Your task to perform on an android device: empty trash in google photos Image 0: 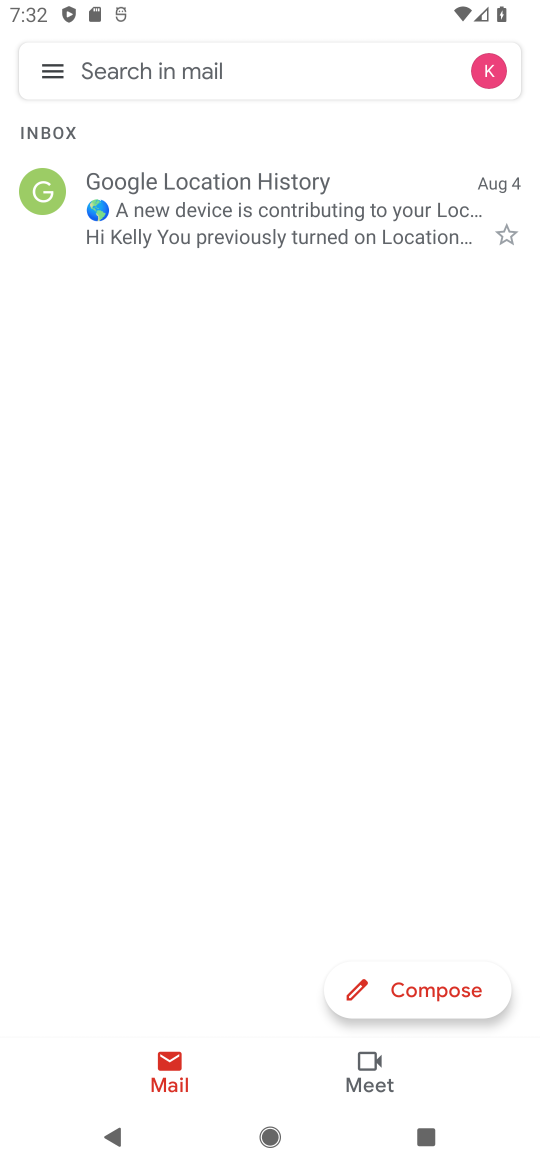
Step 0: press home button
Your task to perform on an android device: empty trash in google photos Image 1: 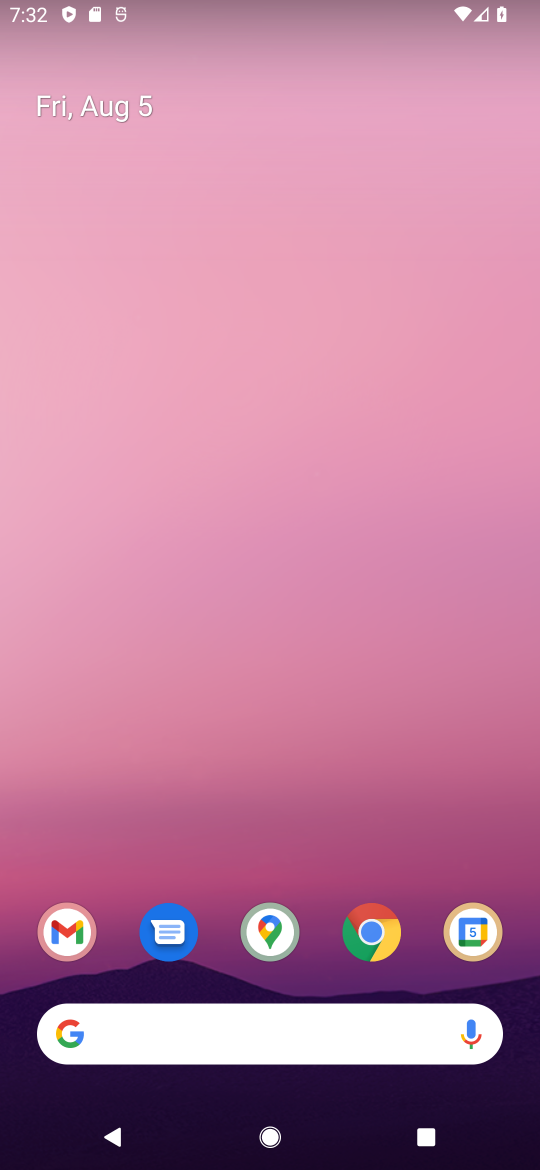
Step 1: drag from (364, 807) to (392, 147)
Your task to perform on an android device: empty trash in google photos Image 2: 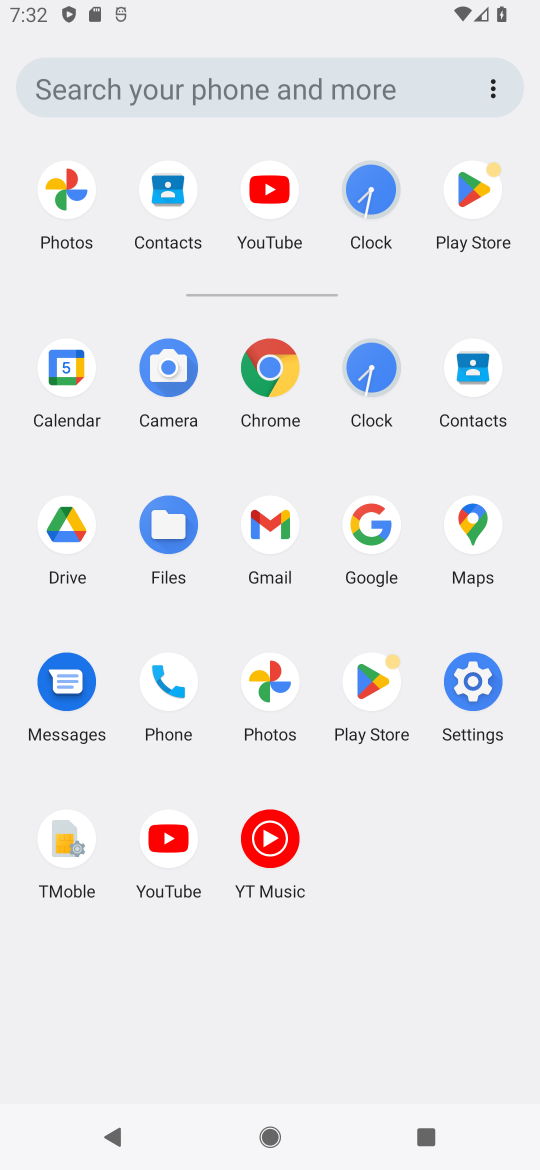
Step 2: click (275, 677)
Your task to perform on an android device: empty trash in google photos Image 3: 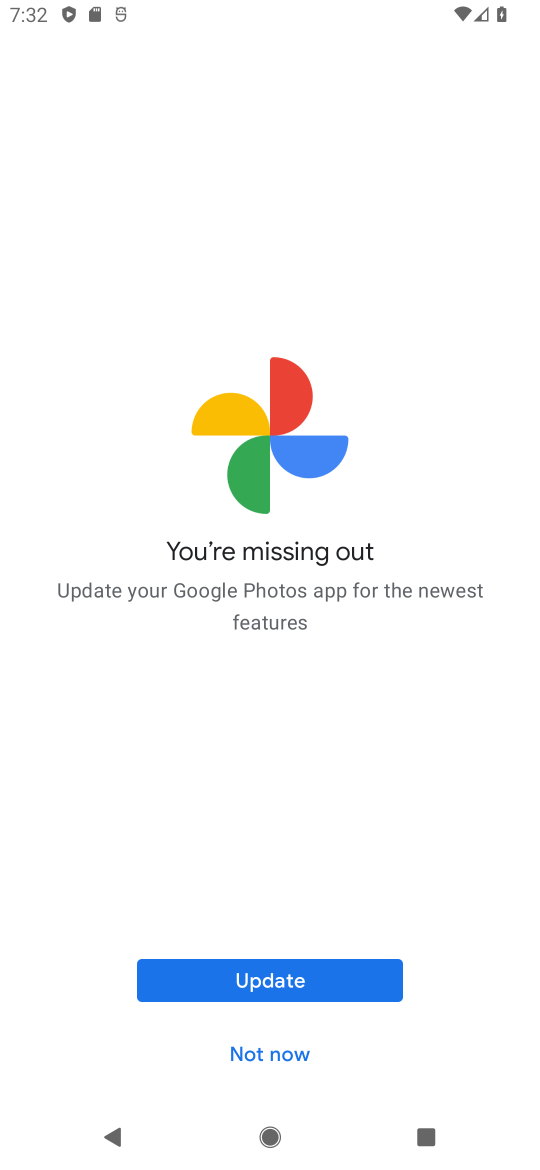
Step 3: click (251, 1040)
Your task to perform on an android device: empty trash in google photos Image 4: 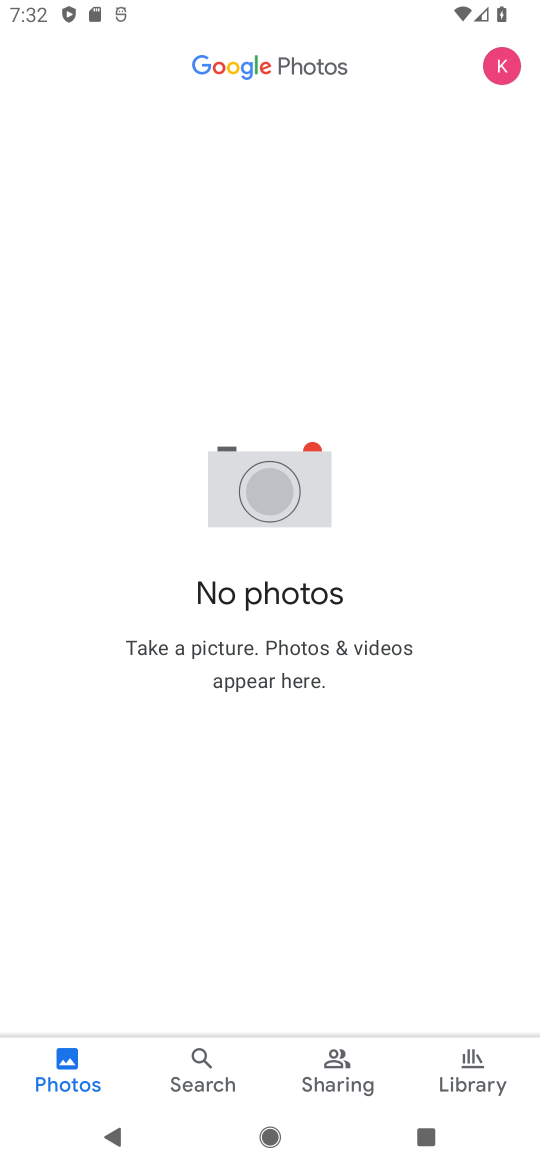
Step 4: click (477, 1065)
Your task to perform on an android device: empty trash in google photos Image 5: 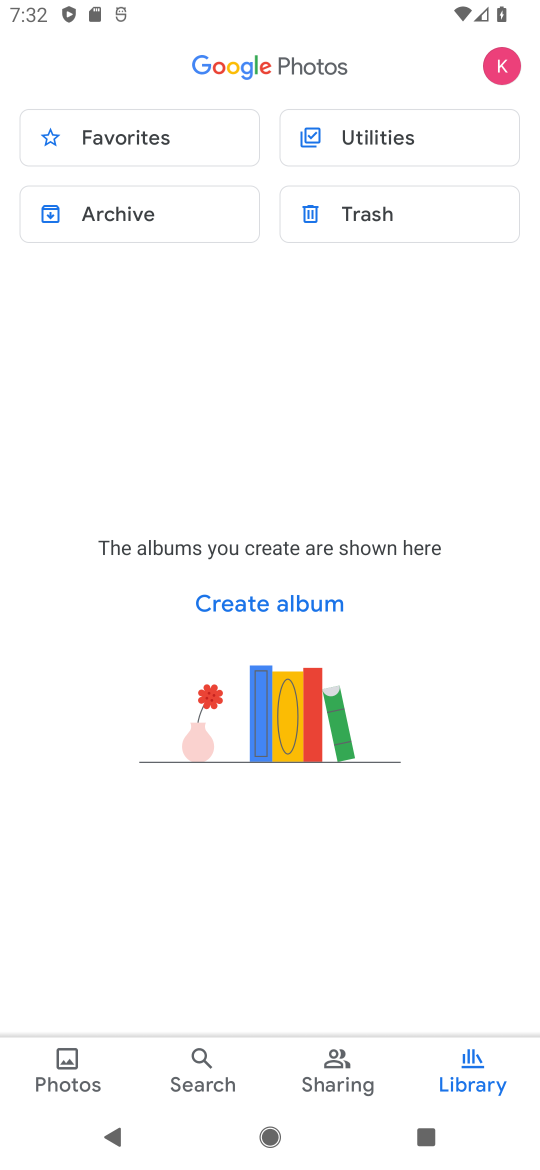
Step 5: click (433, 203)
Your task to perform on an android device: empty trash in google photos Image 6: 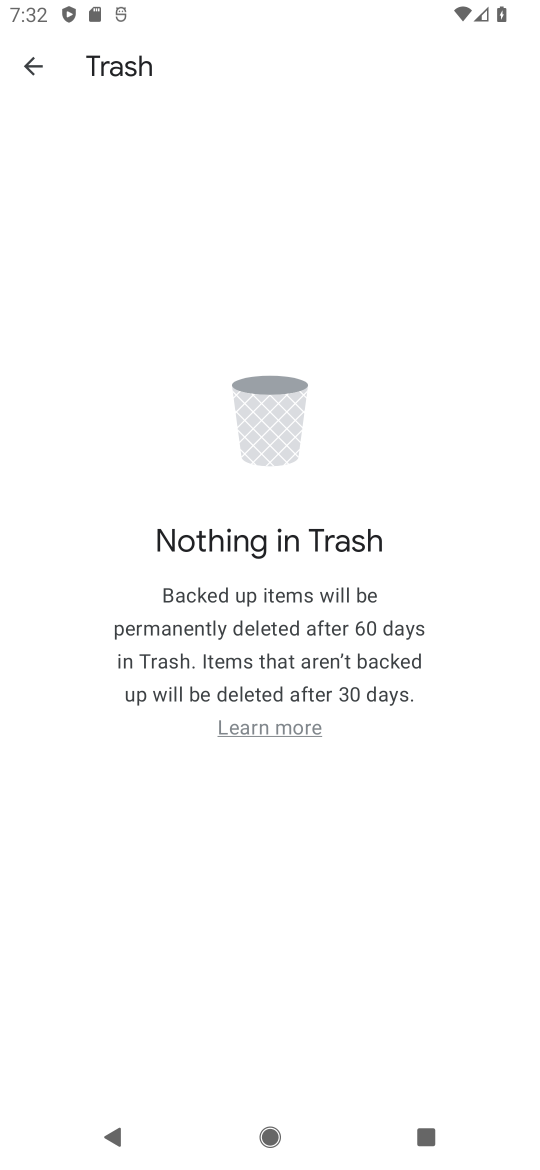
Step 6: task complete